Your task to perform on an android device: turn pop-ups off in chrome Image 0: 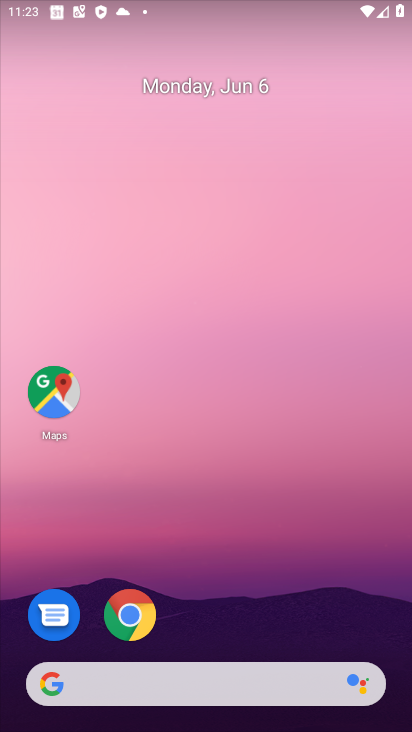
Step 0: click (129, 609)
Your task to perform on an android device: turn pop-ups off in chrome Image 1: 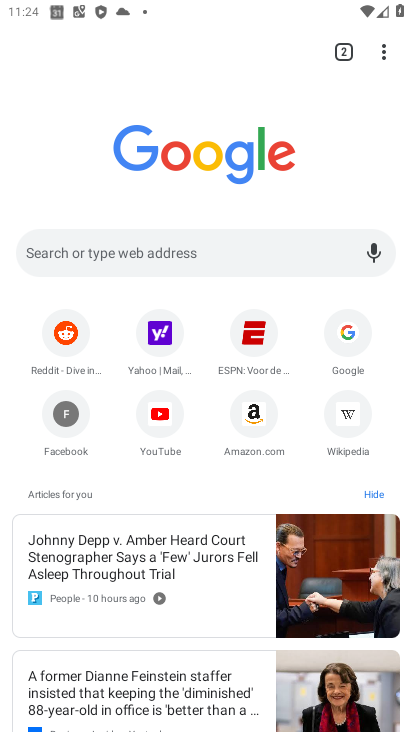
Step 1: click (381, 64)
Your task to perform on an android device: turn pop-ups off in chrome Image 2: 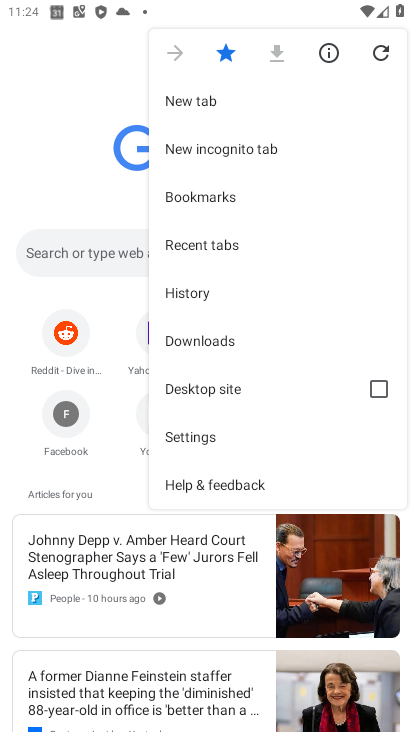
Step 2: click (243, 436)
Your task to perform on an android device: turn pop-ups off in chrome Image 3: 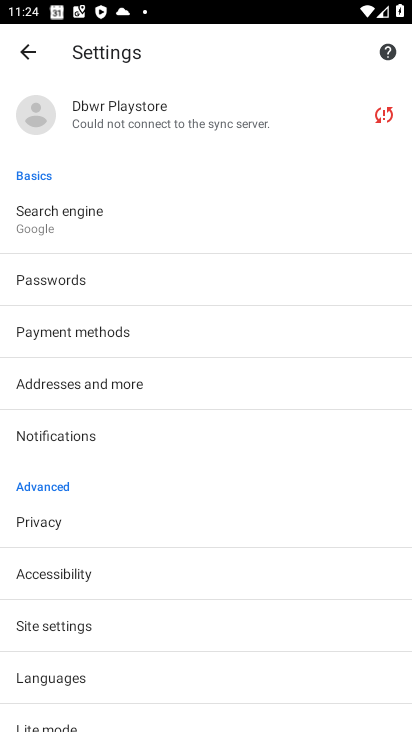
Step 3: task complete